Your task to perform on an android device: open app "Google Keep" (install if not already installed) Image 0: 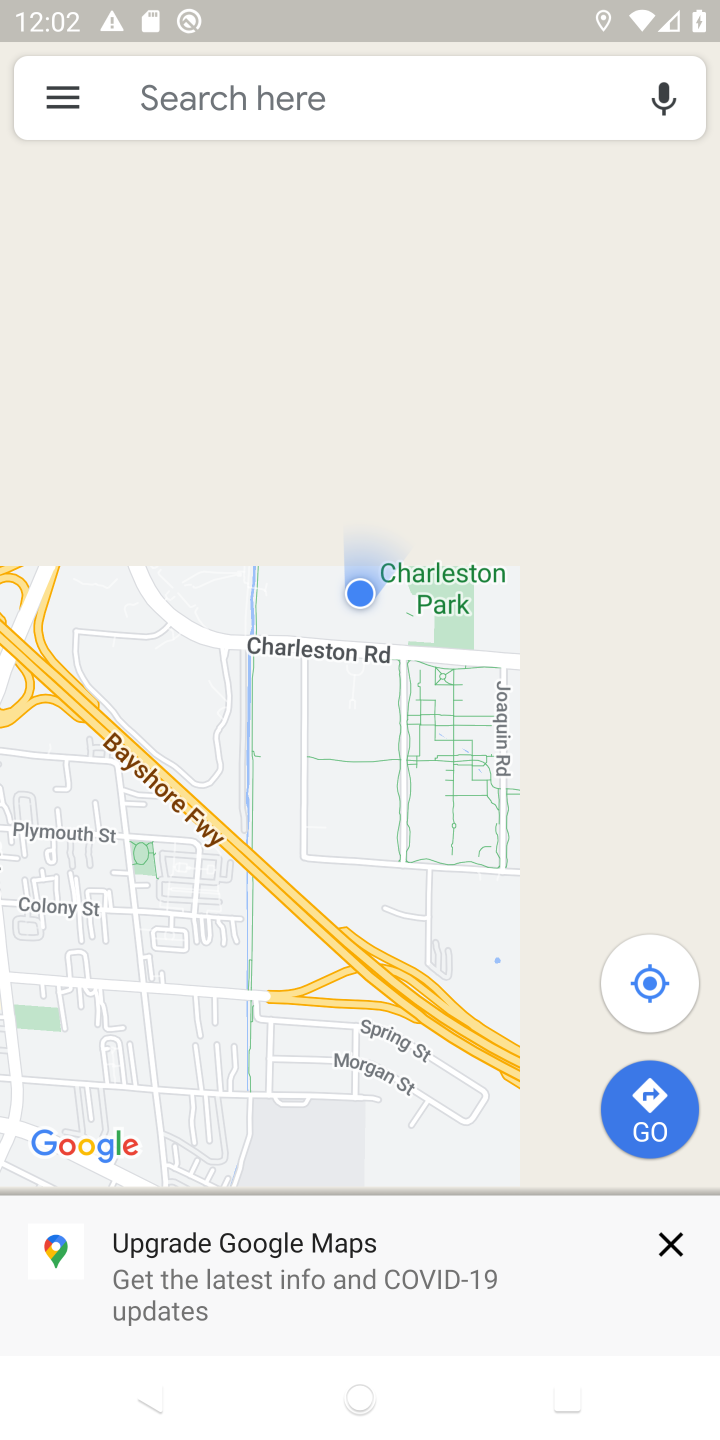
Step 0: press home button
Your task to perform on an android device: open app "Google Keep" (install if not already installed) Image 1: 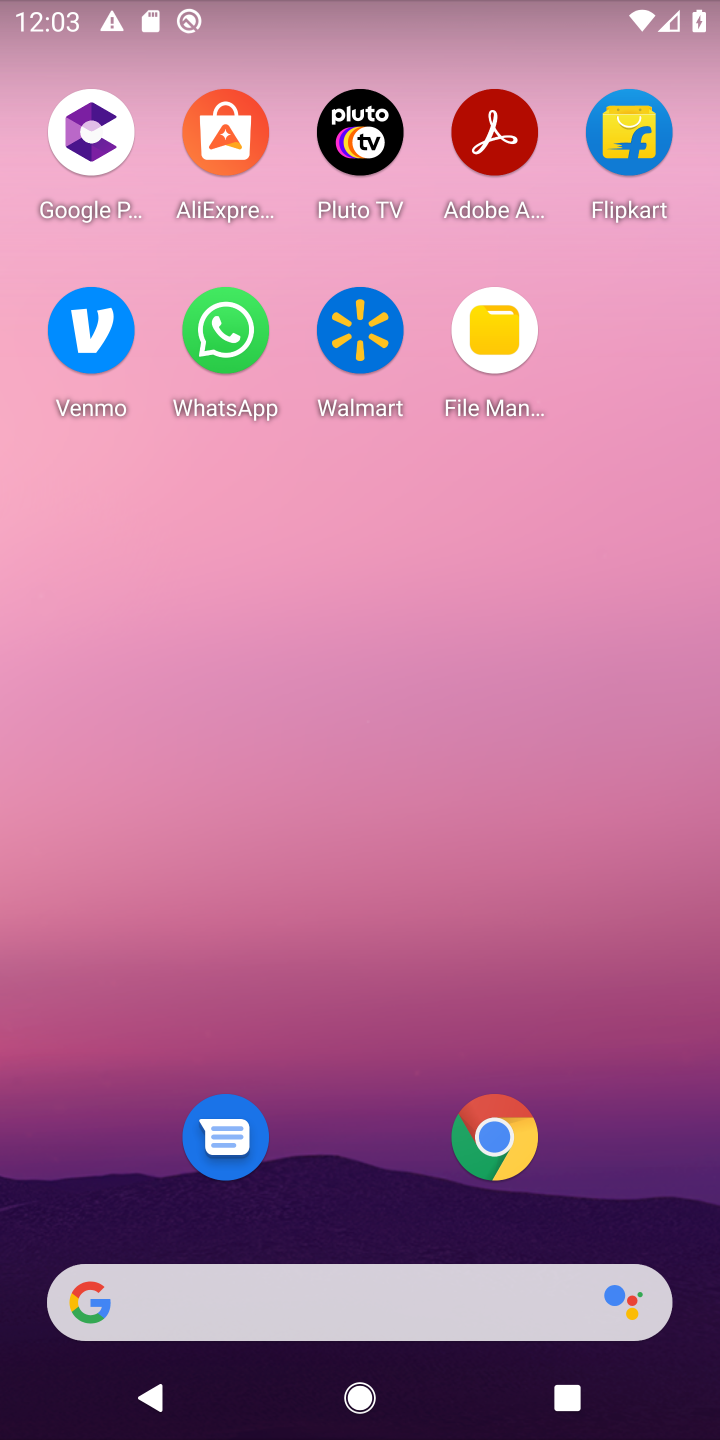
Step 1: click (369, 32)
Your task to perform on an android device: open app "Google Keep" (install if not already installed) Image 2: 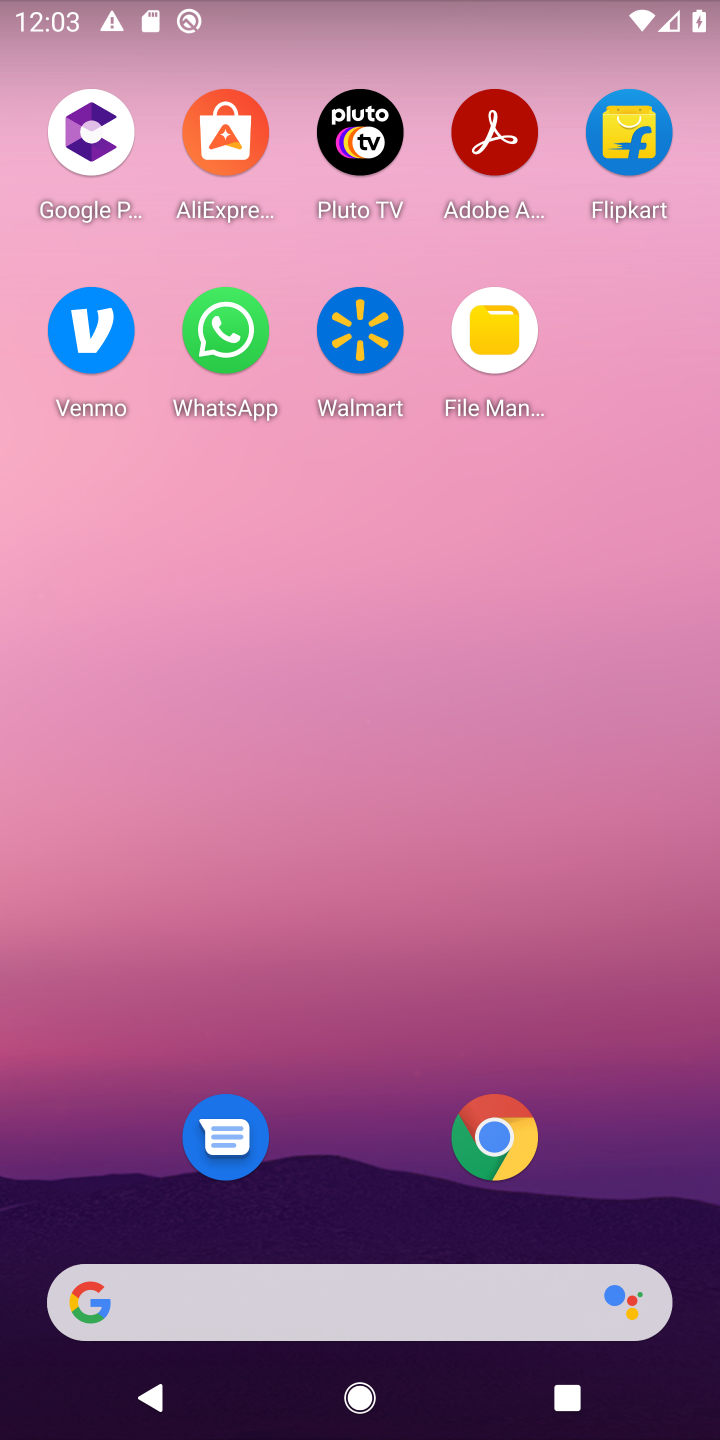
Step 2: drag from (360, 738) to (221, 69)
Your task to perform on an android device: open app "Google Keep" (install if not already installed) Image 3: 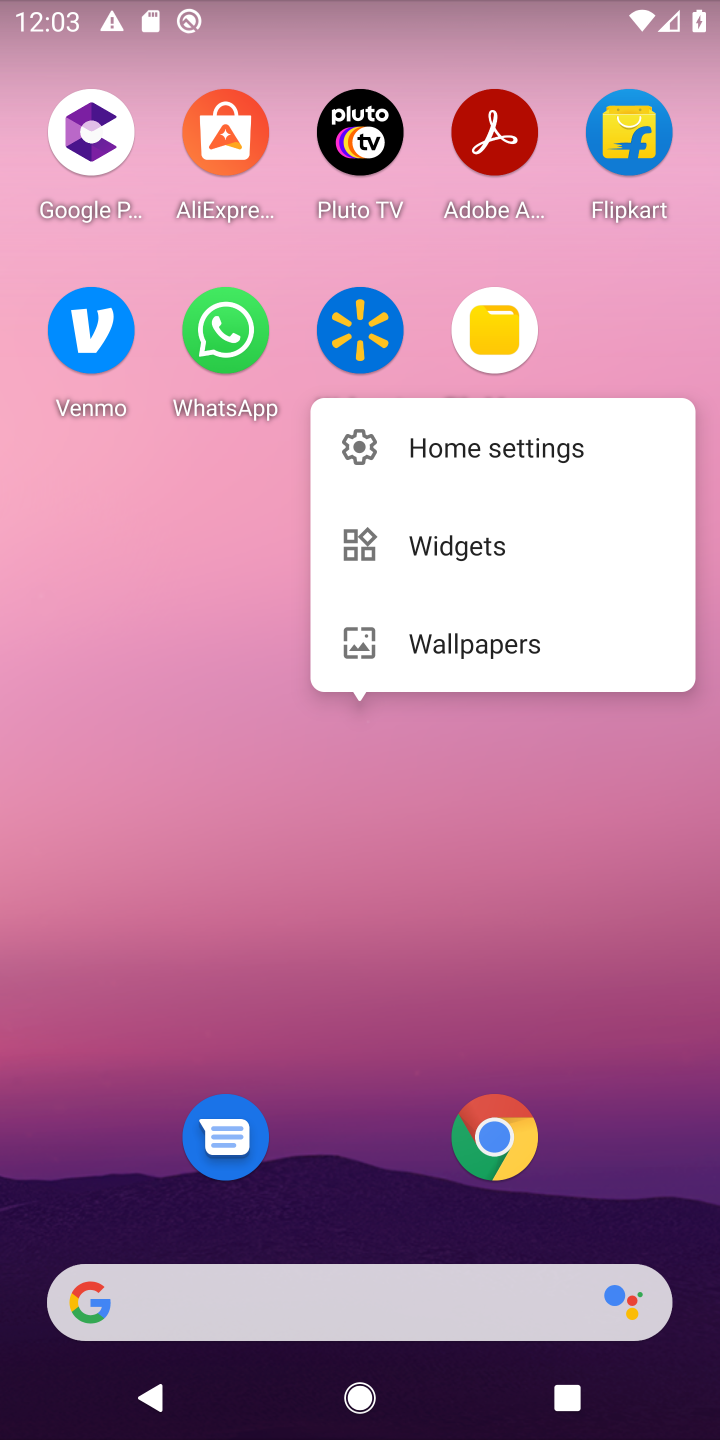
Step 3: drag from (339, 1200) to (404, 471)
Your task to perform on an android device: open app "Google Keep" (install if not already installed) Image 4: 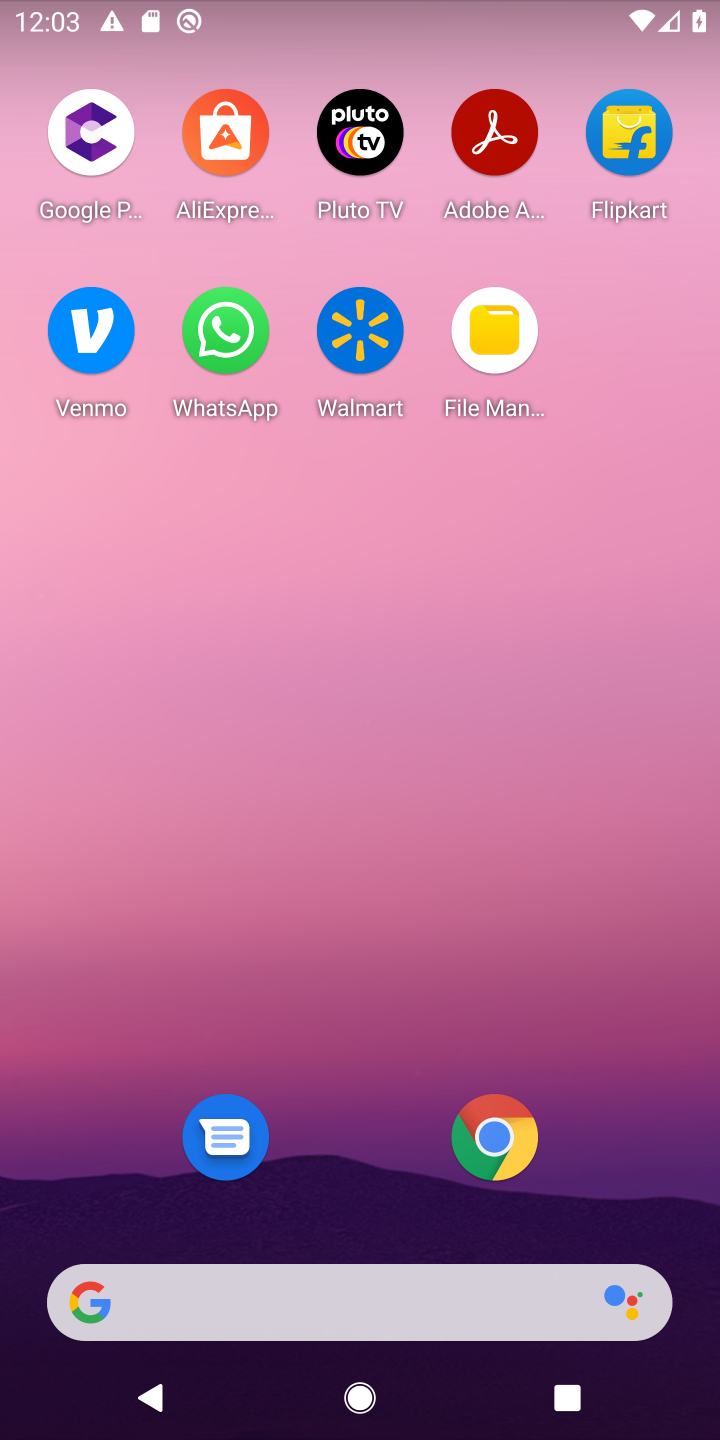
Step 4: drag from (339, 1183) to (459, 6)
Your task to perform on an android device: open app "Google Keep" (install if not already installed) Image 5: 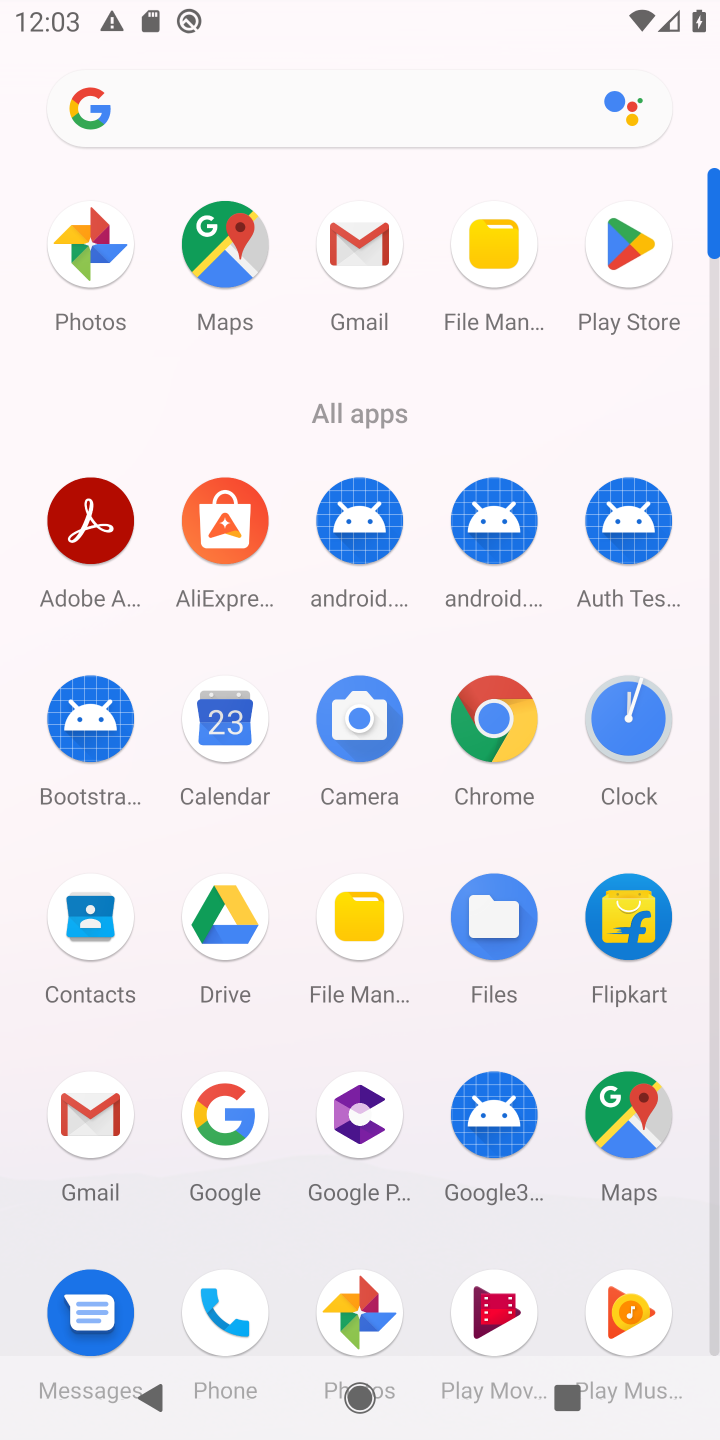
Step 5: click (621, 269)
Your task to perform on an android device: open app "Google Keep" (install if not already installed) Image 6: 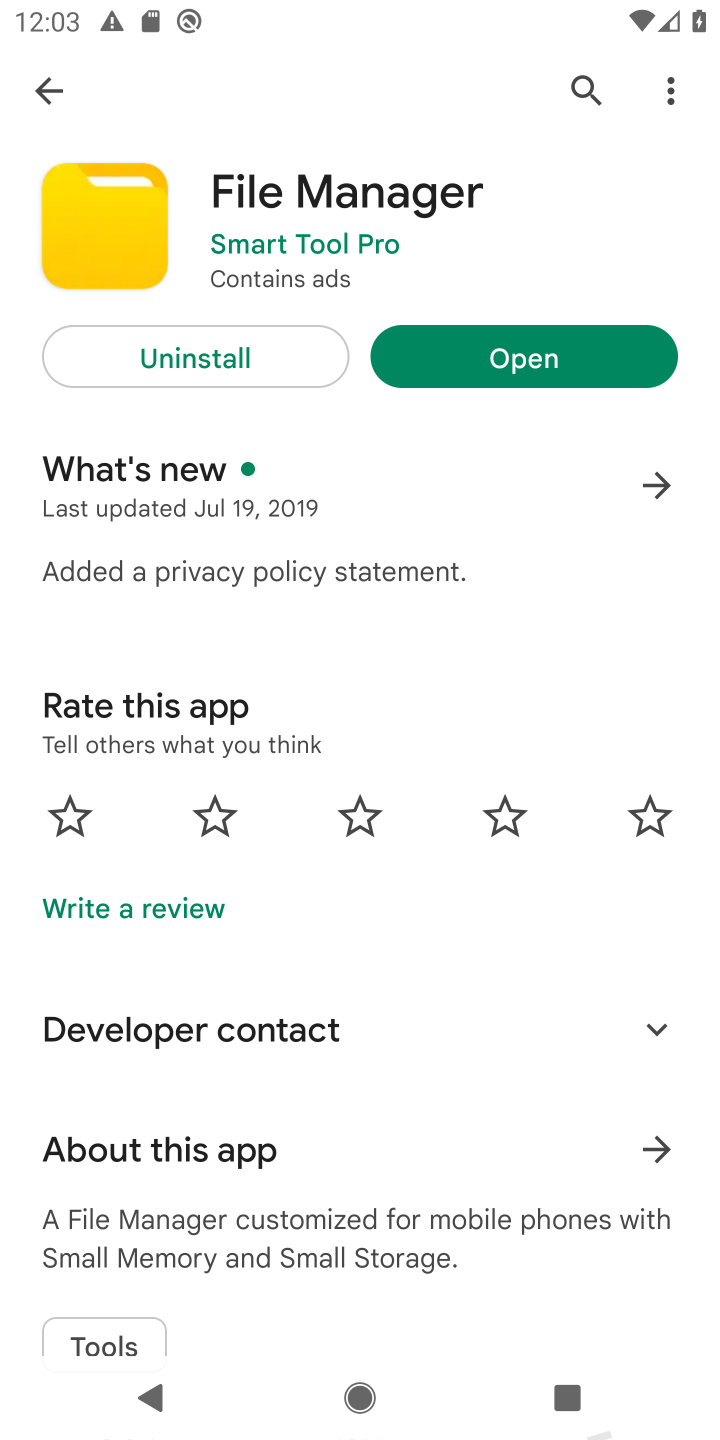
Step 6: click (50, 82)
Your task to perform on an android device: open app "Google Keep" (install if not already installed) Image 7: 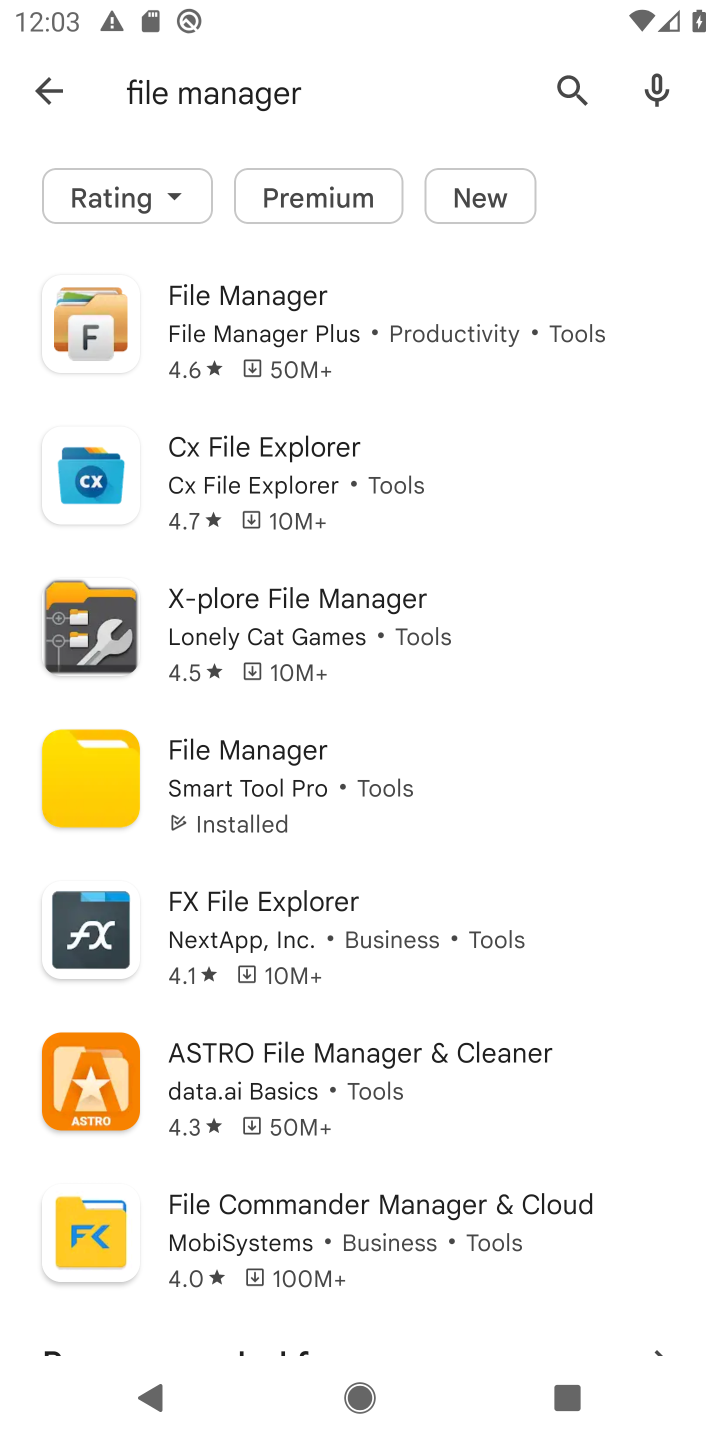
Step 7: click (55, 89)
Your task to perform on an android device: open app "Google Keep" (install if not already installed) Image 8: 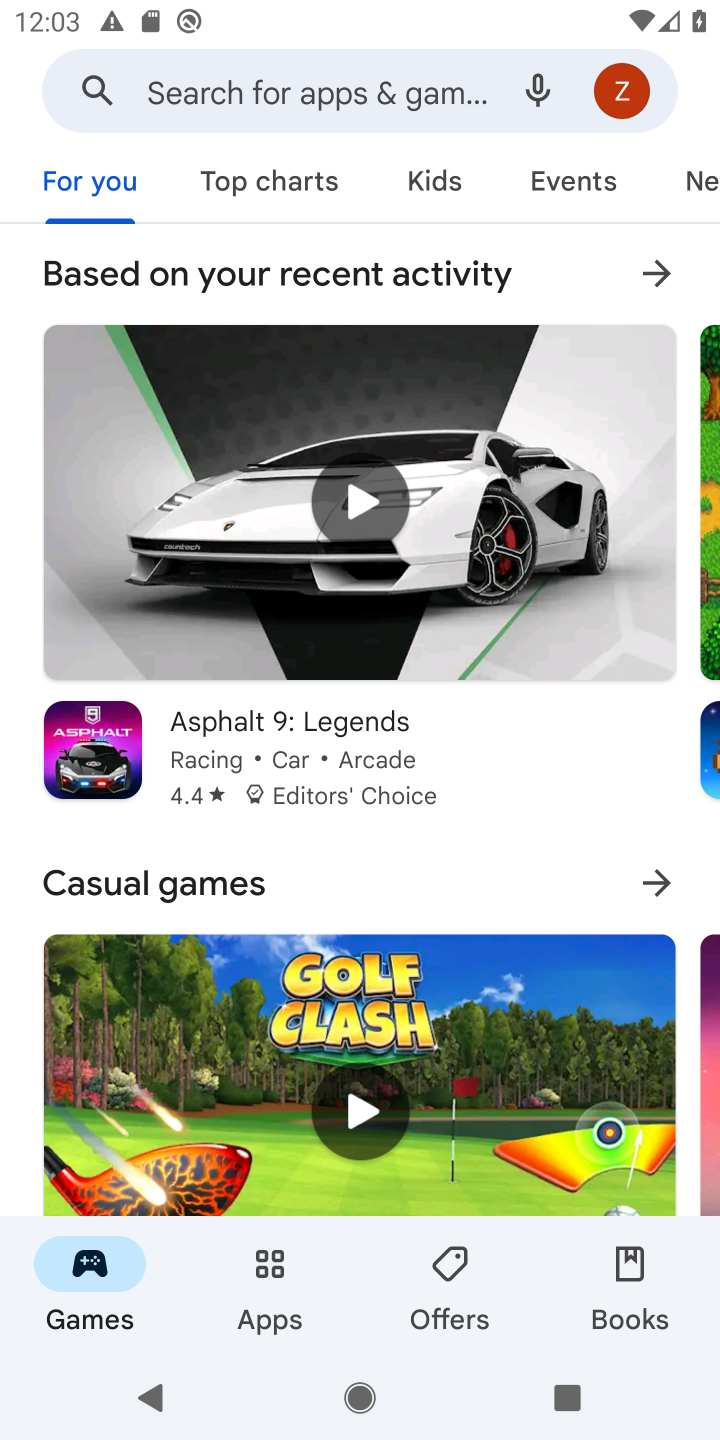
Step 8: click (315, 95)
Your task to perform on an android device: open app "Google Keep" (install if not already installed) Image 9: 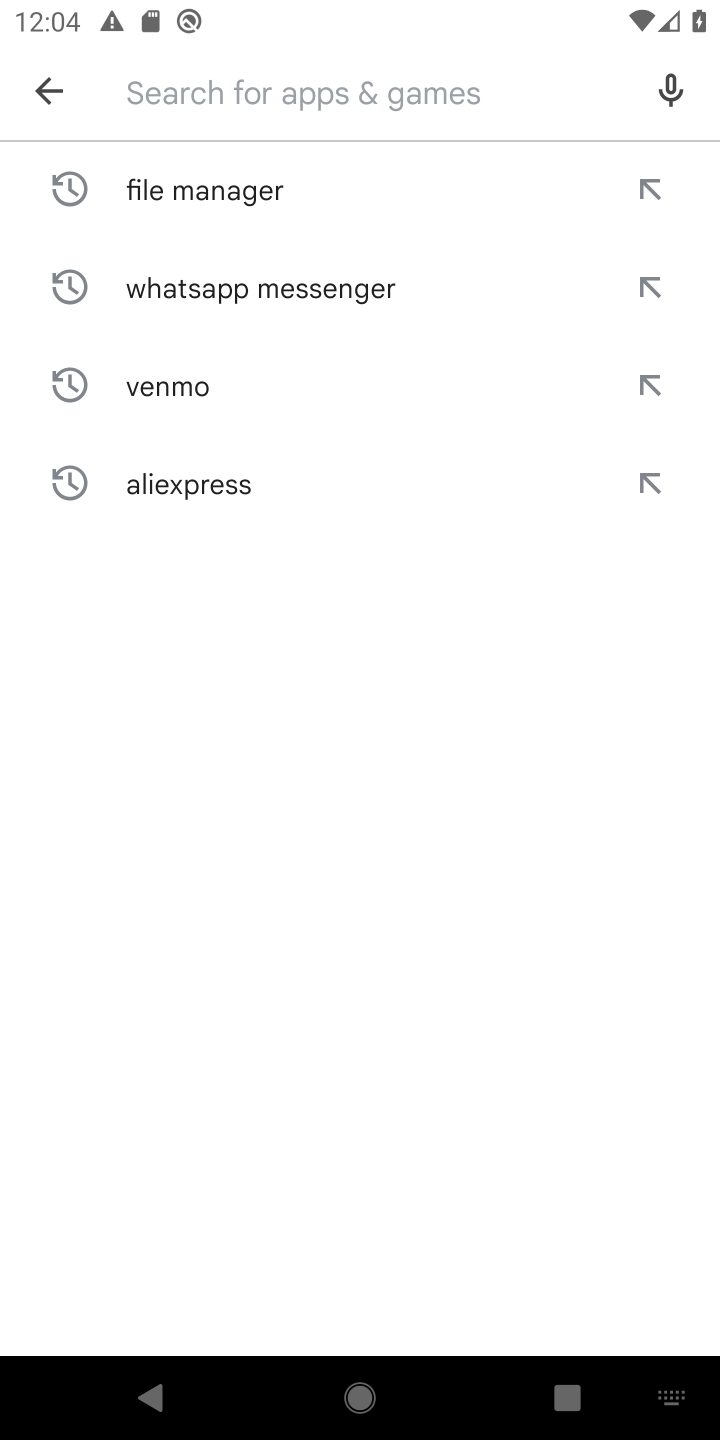
Step 9: type "Google Keep"
Your task to perform on an android device: open app "Google Keep" (install if not already installed) Image 10: 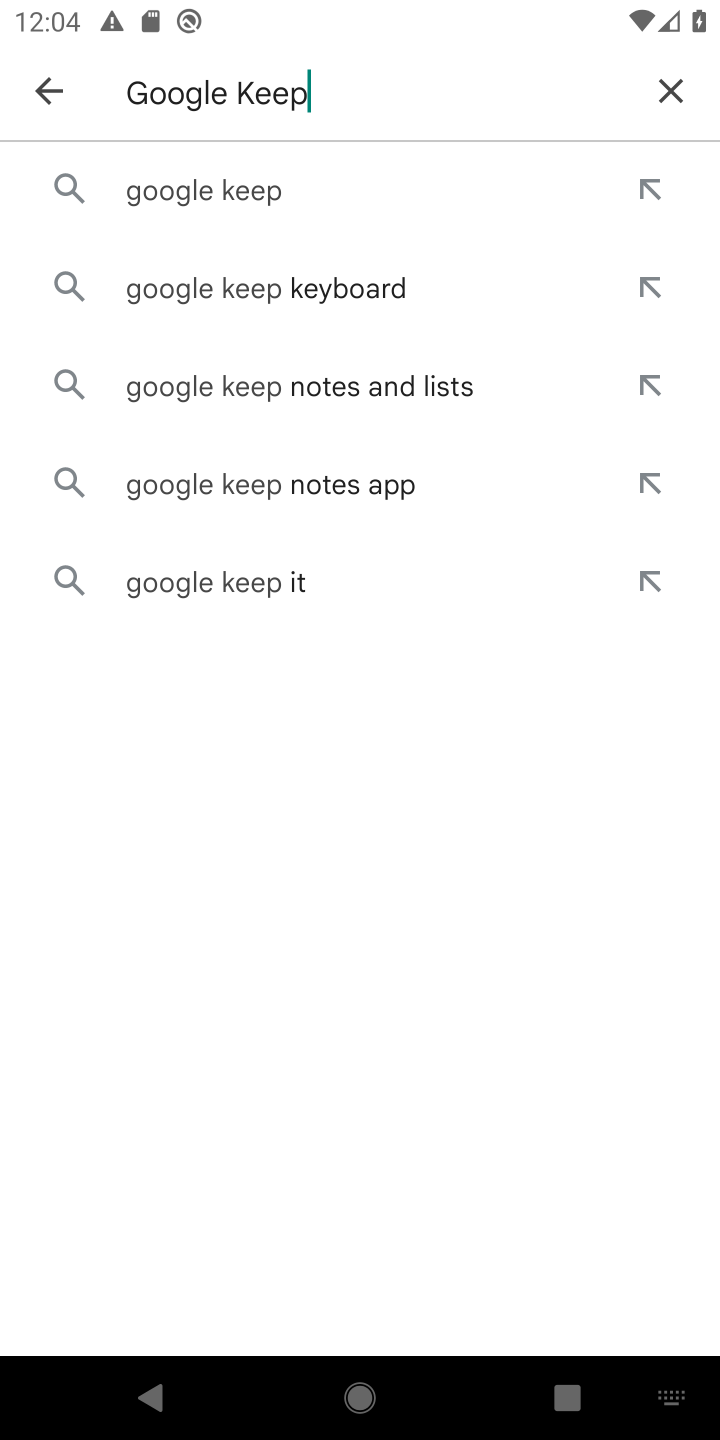
Step 10: click (200, 178)
Your task to perform on an android device: open app "Google Keep" (install if not already installed) Image 11: 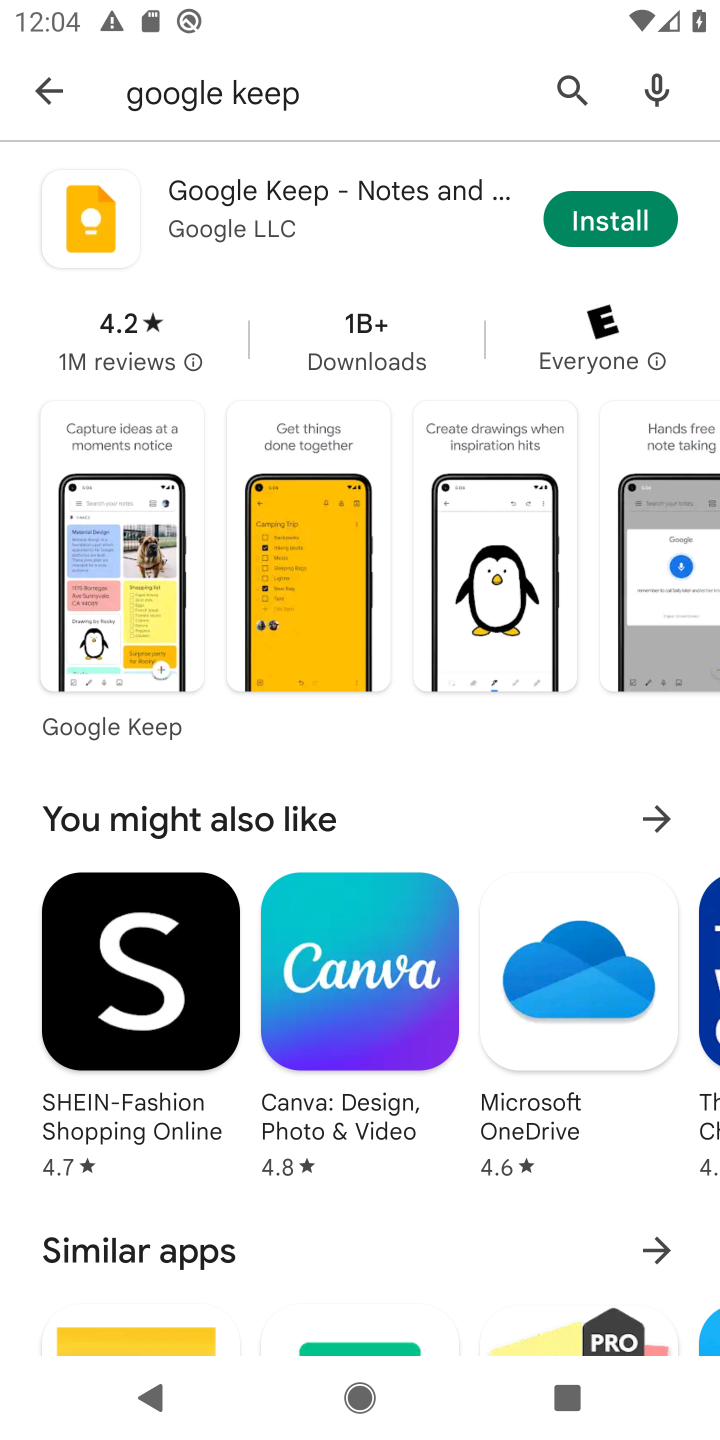
Step 11: click (589, 212)
Your task to perform on an android device: open app "Google Keep" (install if not already installed) Image 12: 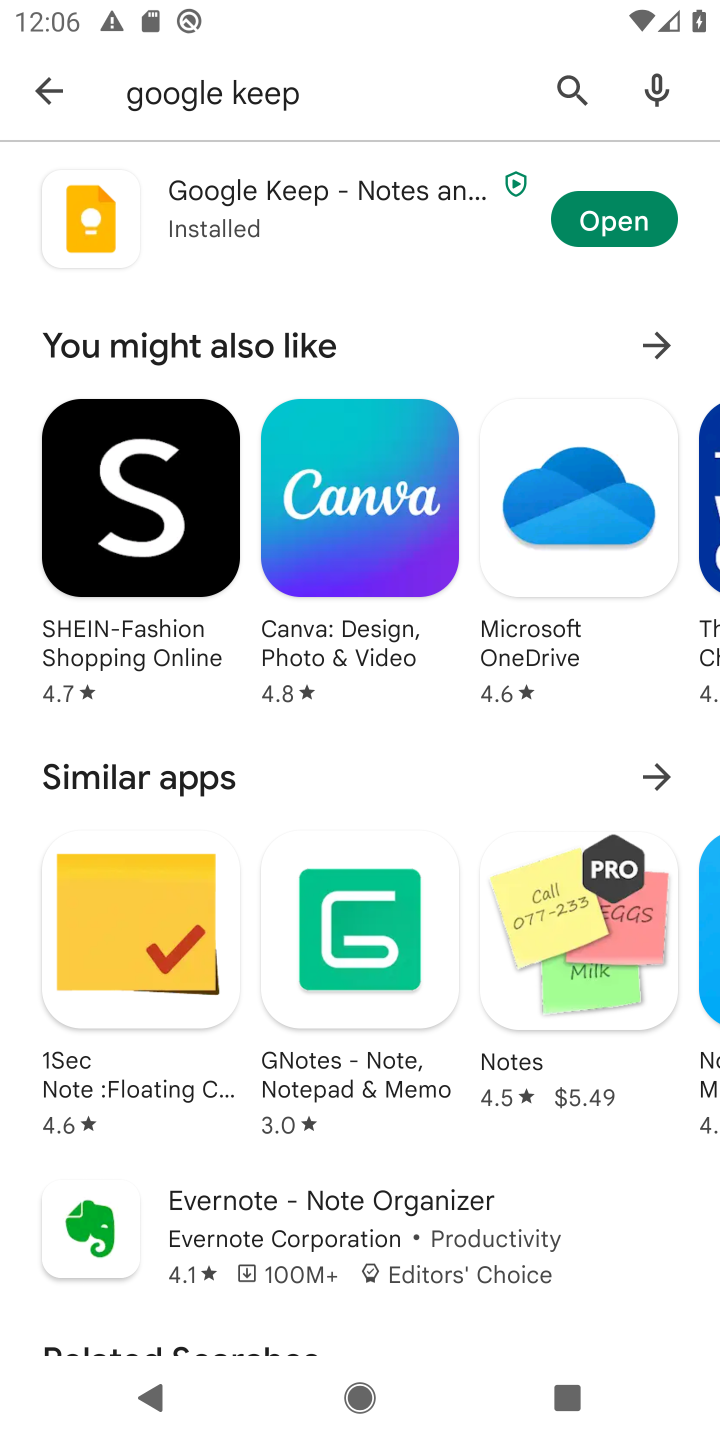
Step 12: click (589, 243)
Your task to perform on an android device: open app "Google Keep" (install if not already installed) Image 13: 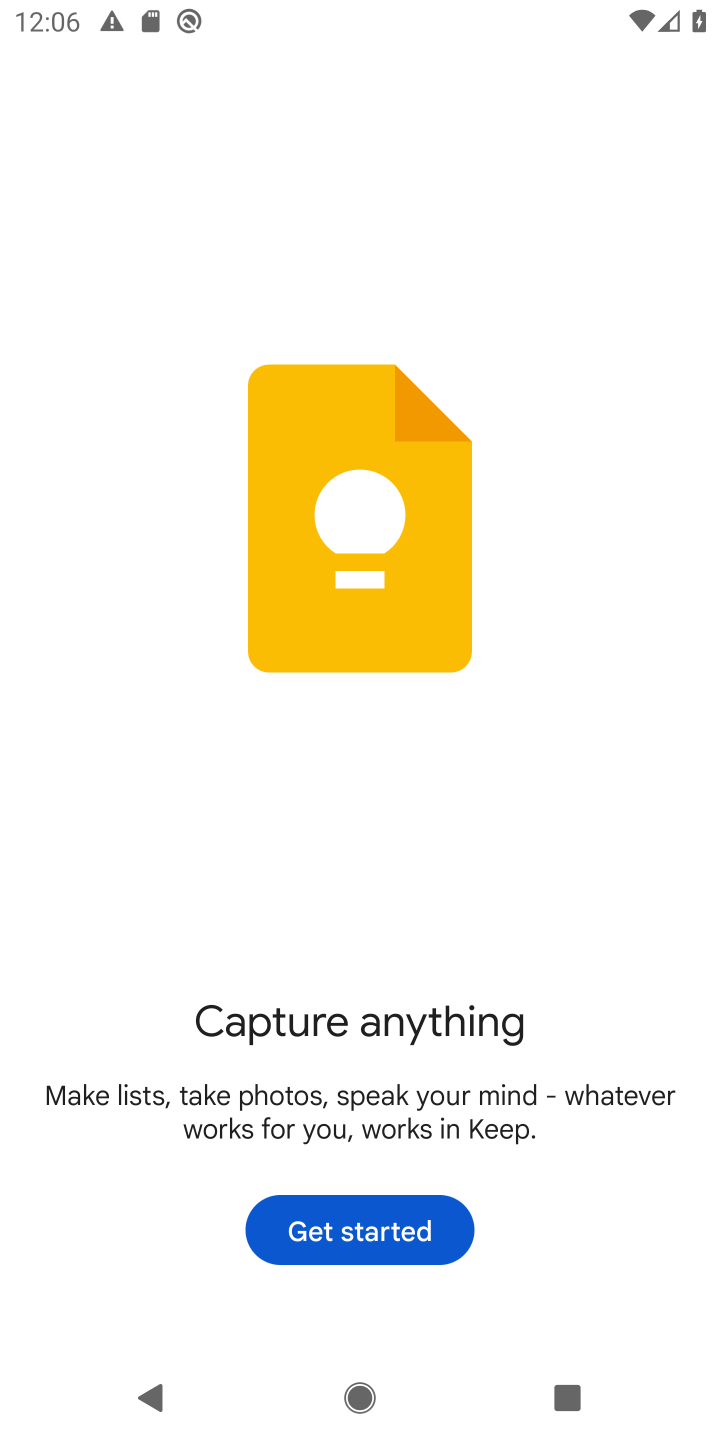
Step 13: task complete